Your task to perform on an android device: turn on showing notifications on the lock screen Image 0: 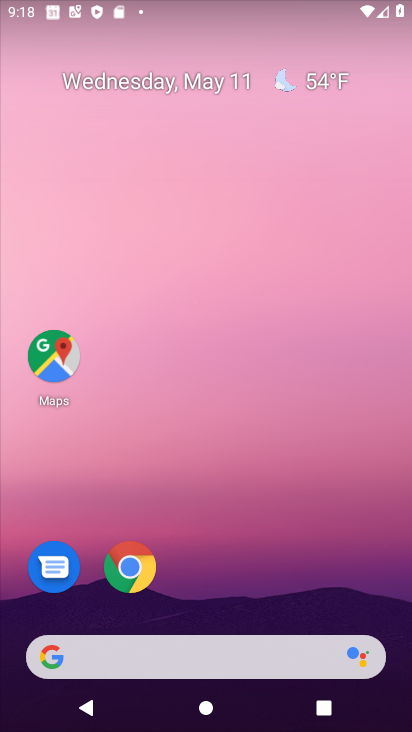
Step 0: drag from (226, 536) to (282, 10)
Your task to perform on an android device: turn on showing notifications on the lock screen Image 1: 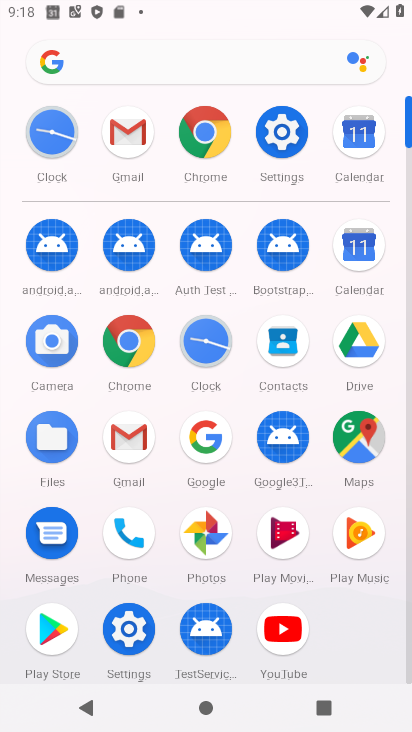
Step 1: click (131, 625)
Your task to perform on an android device: turn on showing notifications on the lock screen Image 2: 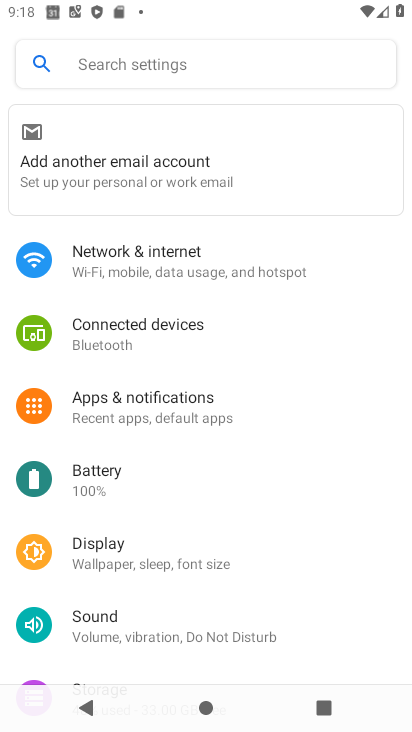
Step 2: click (143, 410)
Your task to perform on an android device: turn on showing notifications on the lock screen Image 3: 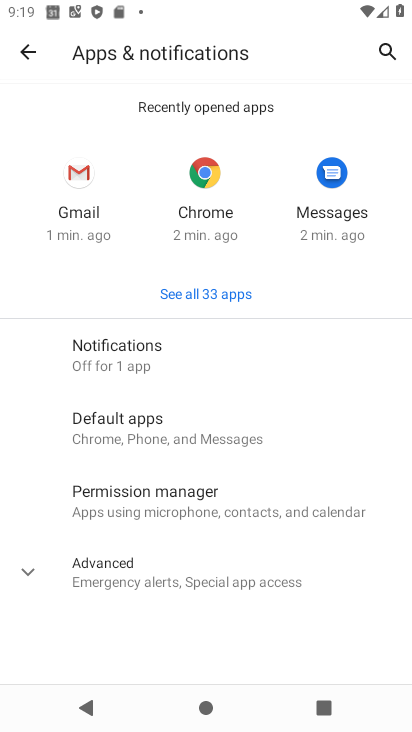
Step 3: click (131, 360)
Your task to perform on an android device: turn on showing notifications on the lock screen Image 4: 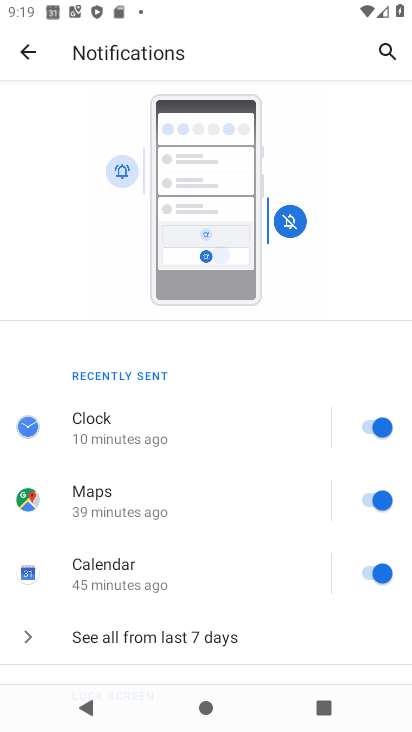
Step 4: drag from (115, 574) to (218, 189)
Your task to perform on an android device: turn on showing notifications on the lock screen Image 5: 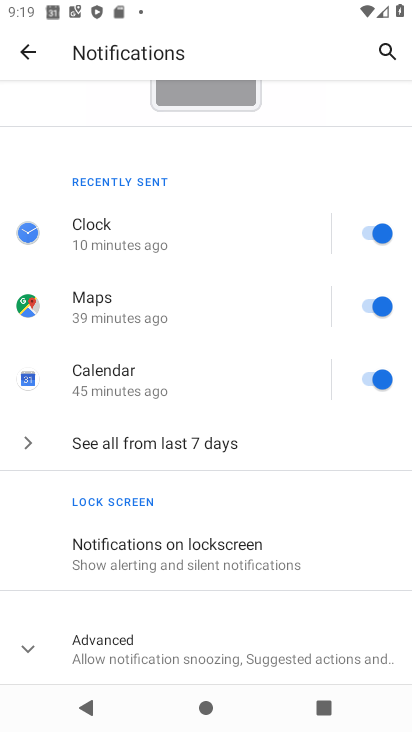
Step 5: click (138, 570)
Your task to perform on an android device: turn on showing notifications on the lock screen Image 6: 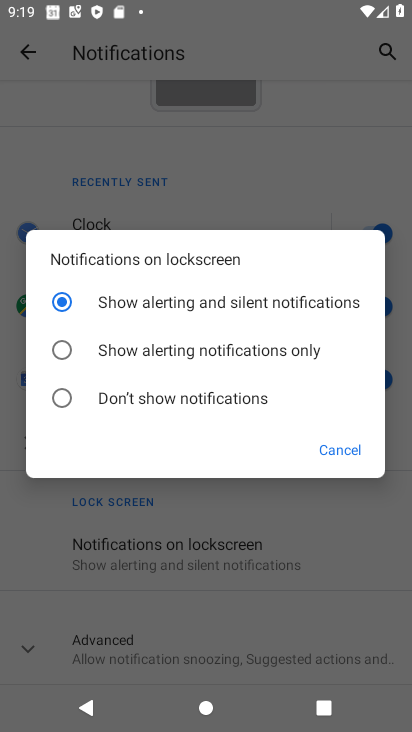
Step 6: task complete